Your task to perform on an android device: turn off javascript in the chrome app Image 0: 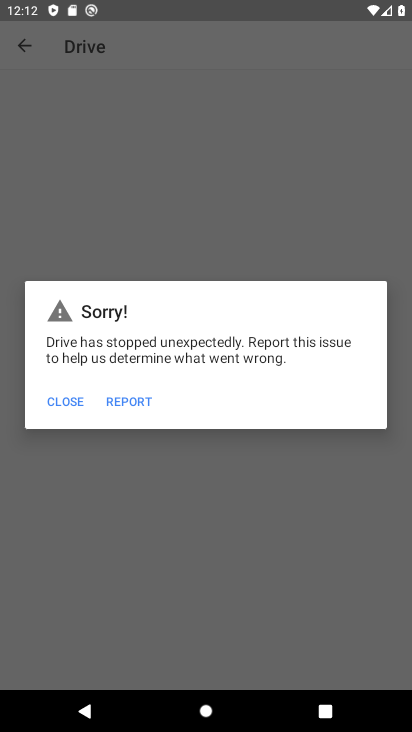
Step 0: press home button
Your task to perform on an android device: turn off javascript in the chrome app Image 1: 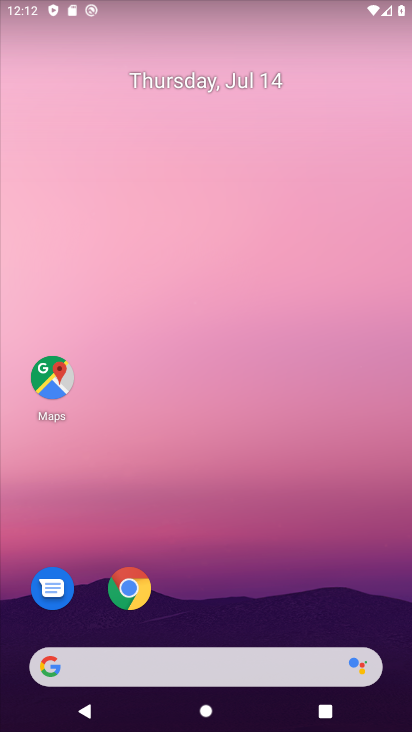
Step 1: click (145, 606)
Your task to perform on an android device: turn off javascript in the chrome app Image 2: 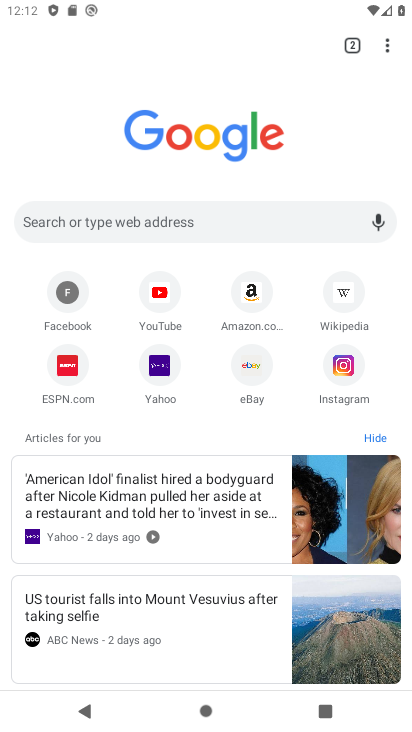
Step 2: click (390, 58)
Your task to perform on an android device: turn off javascript in the chrome app Image 3: 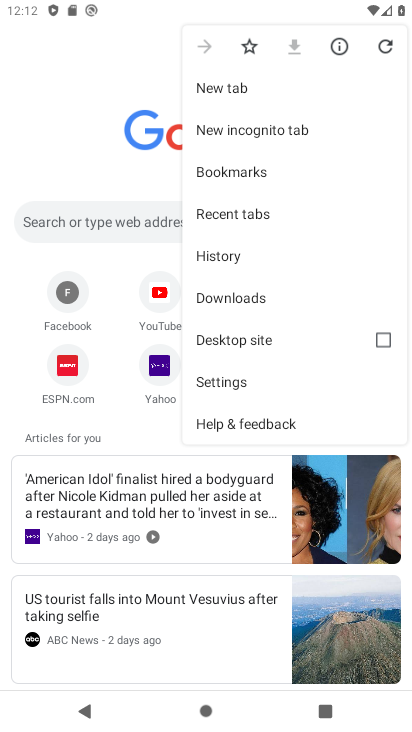
Step 3: click (243, 381)
Your task to perform on an android device: turn off javascript in the chrome app Image 4: 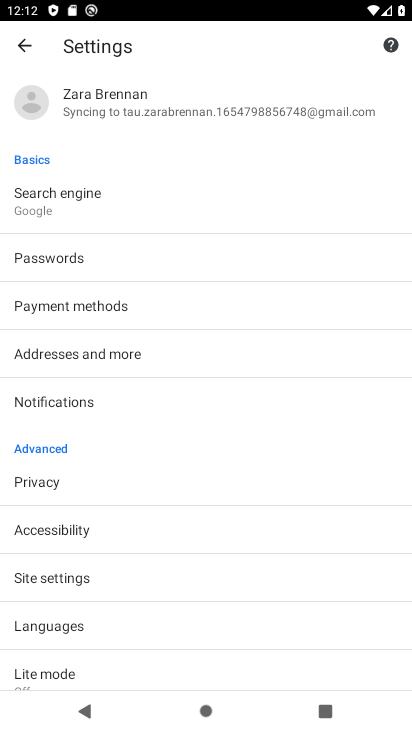
Step 4: click (145, 589)
Your task to perform on an android device: turn off javascript in the chrome app Image 5: 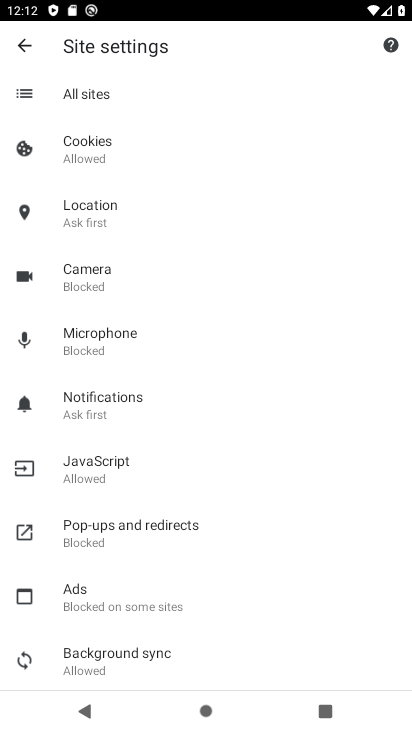
Step 5: click (183, 474)
Your task to perform on an android device: turn off javascript in the chrome app Image 6: 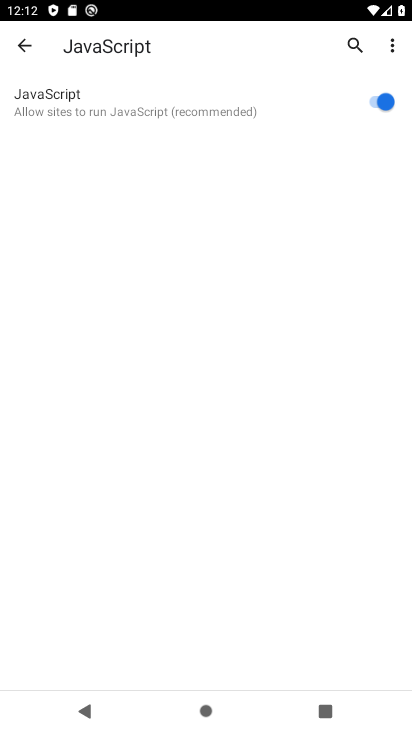
Step 6: click (396, 116)
Your task to perform on an android device: turn off javascript in the chrome app Image 7: 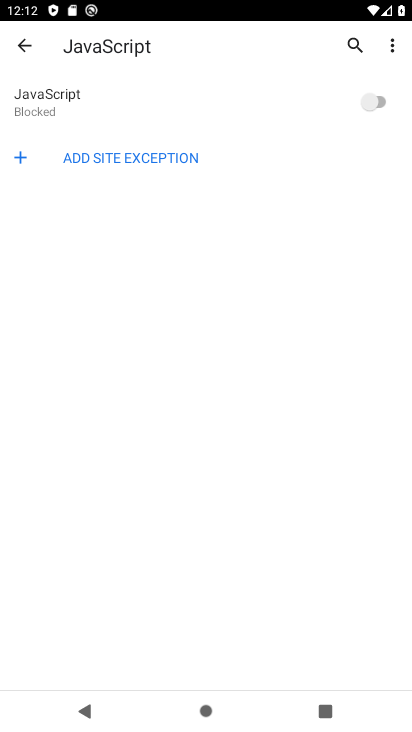
Step 7: task complete